Your task to perform on an android device: Show me popular games on the Play Store Image 0: 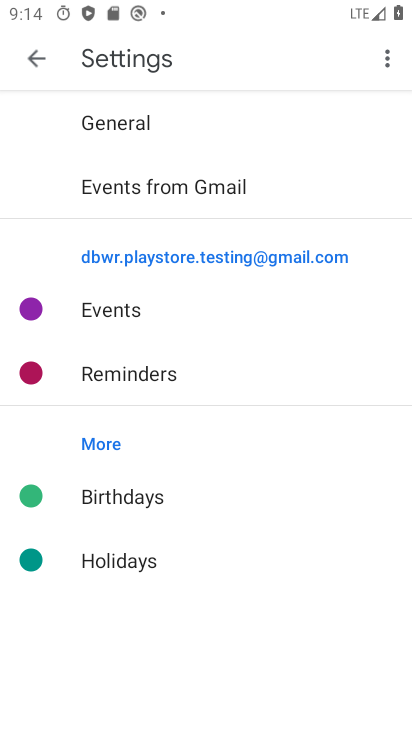
Step 0: press home button
Your task to perform on an android device: Show me popular games on the Play Store Image 1: 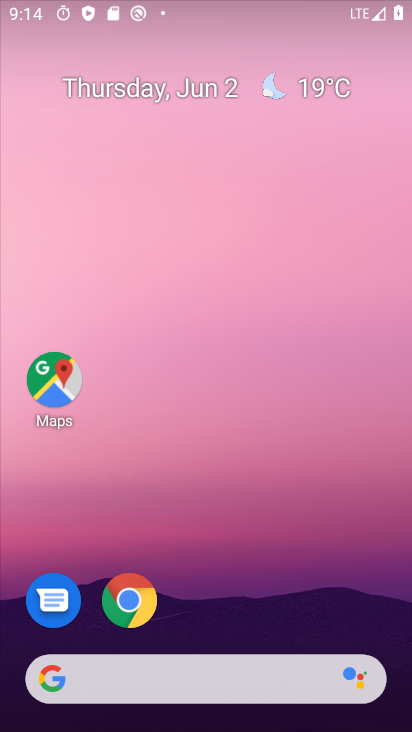
Step 1: drag from (209, 604) to (199, 135)
Your task to perform on an android device: Show me popular games on the Play Store Image 2: 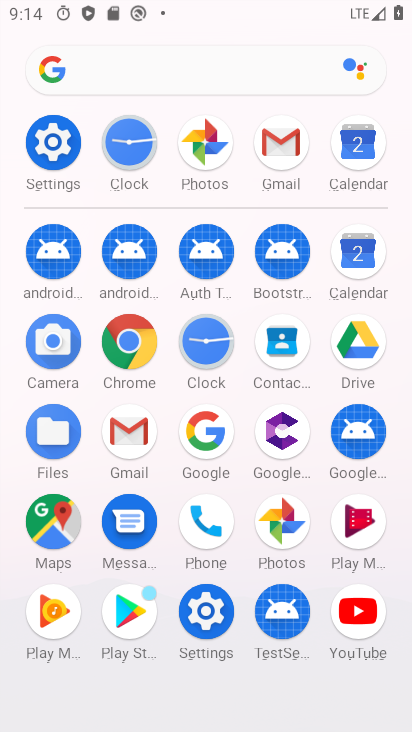
Step 2: click (140, 616)
Your task to perform on an android device: Show me popular games on the Play Store Image 3: 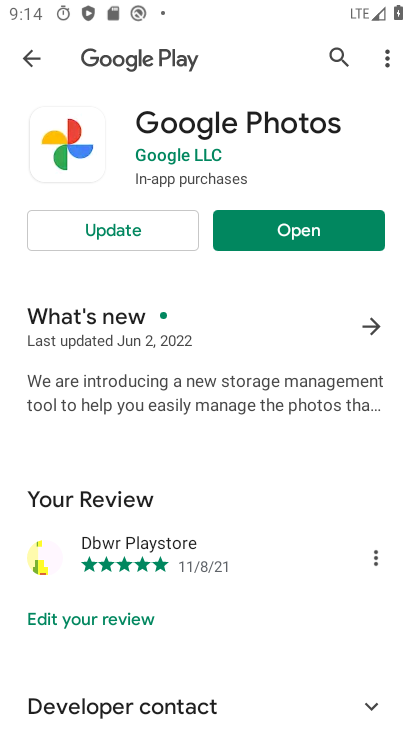
Step 3: click (272, 234)
Your task to perform on an android device: Show me popular games on the Play Store Image 4: 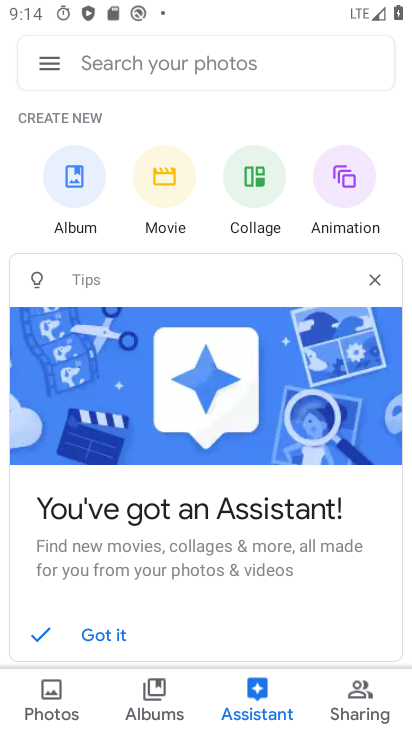
Step 4: click (40, 63)
Your task to perform on an android device: Show me popular games on the Play Store Image 5: 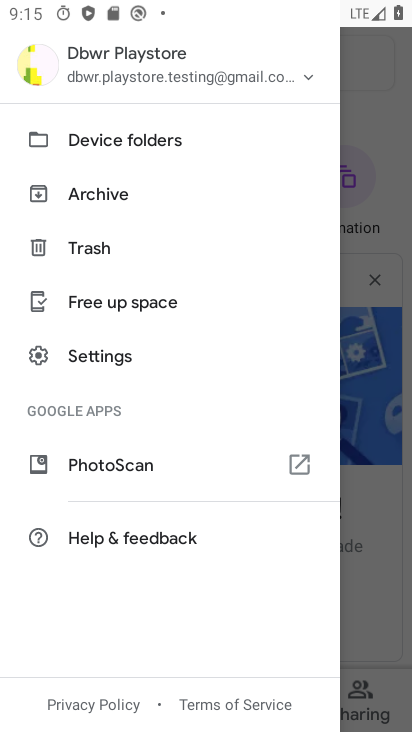
Step 5: click (76, 363)
Your task to perform on an android device: Show me popular games on the Play Store Image 6: 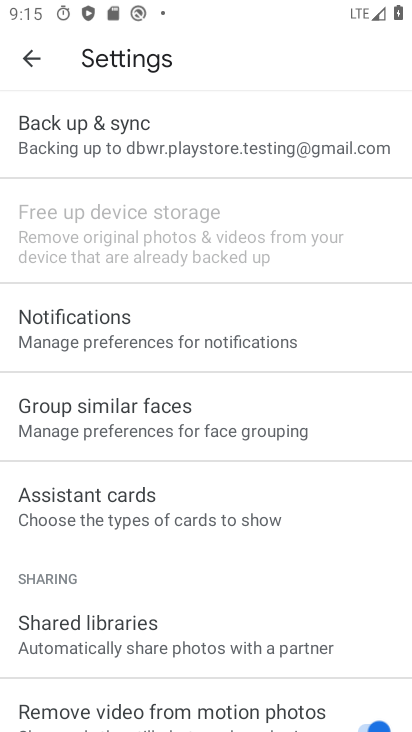
Step 6: click (23, 50)
Your task to perform on an android device: Show me popular games on the Play Store Image 7: 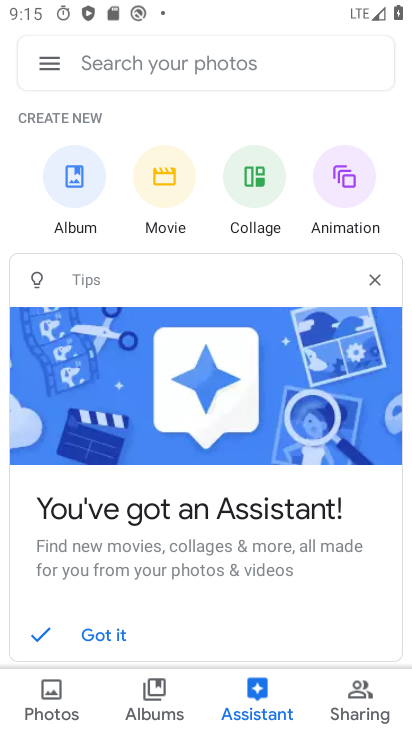
Step 7: press home button
Your task to perform on an android device: Show me popular games on the Play Store Image 8: 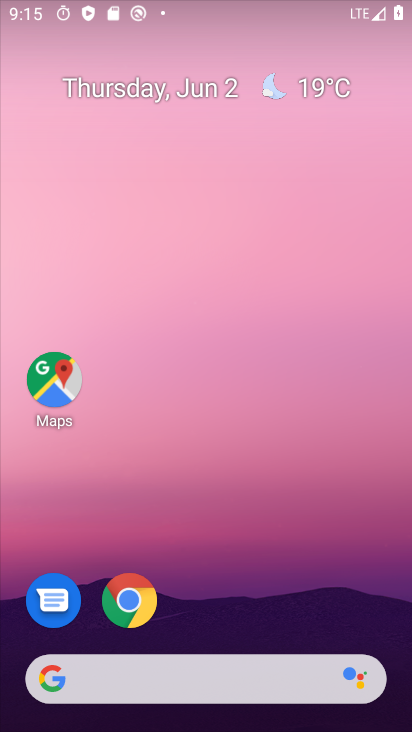
Step 8: drag from (232, 613) to (204, 120)
Your task to perform on an android device: Show me popular games on the Play Store Image 9: 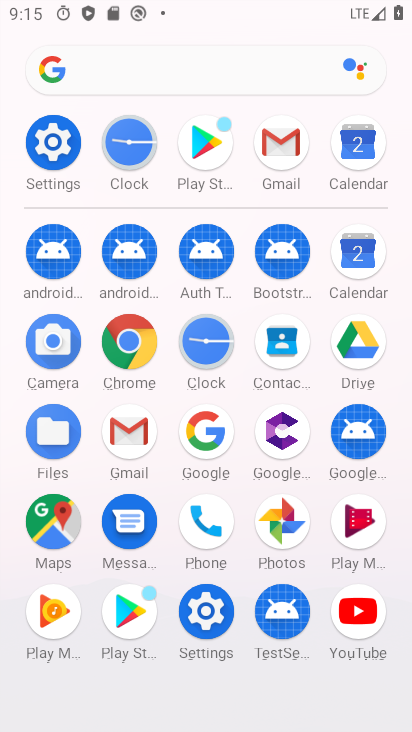
Step 9: click (129, 578)
Your task to perform on an android device: Show me popular games on the Play Store Image 10: 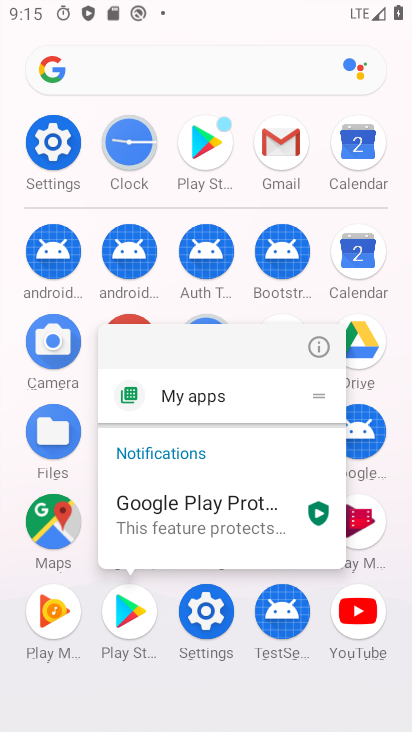
Step 10: click (127, 606)
Your task to perform on an android device: Show me popular games on the Play Store Image 11: 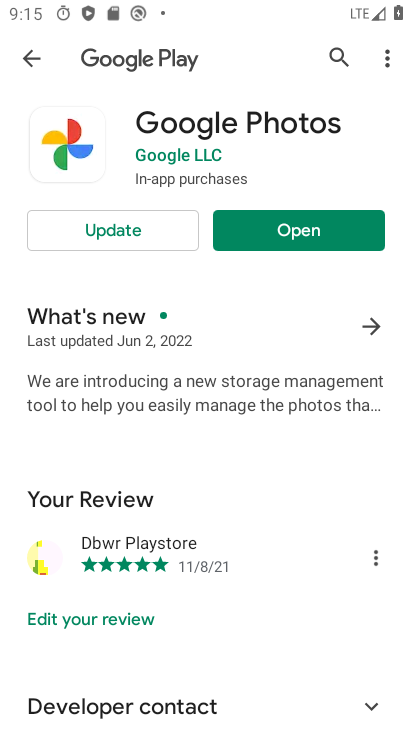
Step 11: click (28, 50)
Your task to perform on an android device: Show me popular games on the Play Store Image 12: 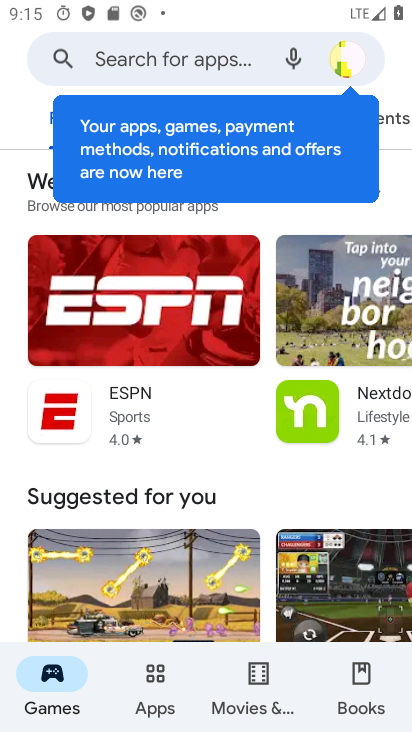
Step 12: click (139, 187)
Your task to perform on an android device: Show me popular games on the Play Store Image 13: 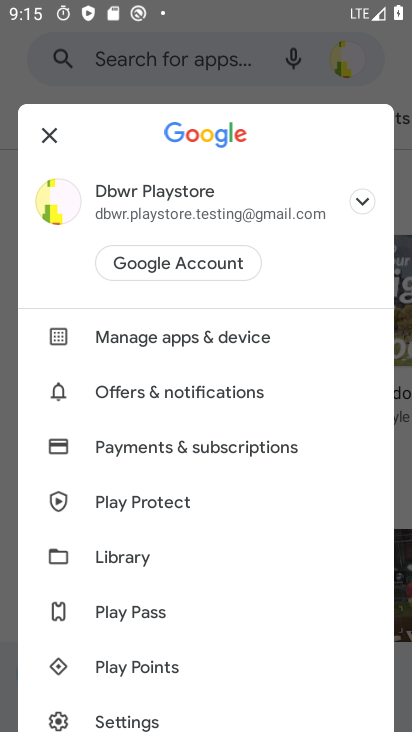
Step 13: click (45, 124)
Your task to perform on an android device: Show me popular games on the Play Store Image 14: 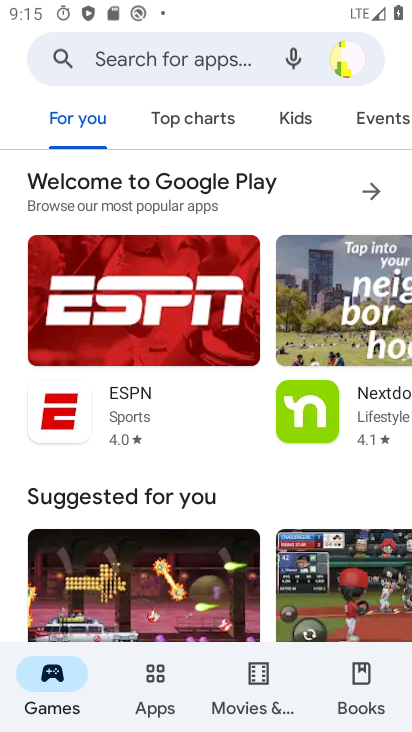
Step 14: click (192, 119)
Your task to perform on an android device: Show me popular games on the Play Store Image 15: 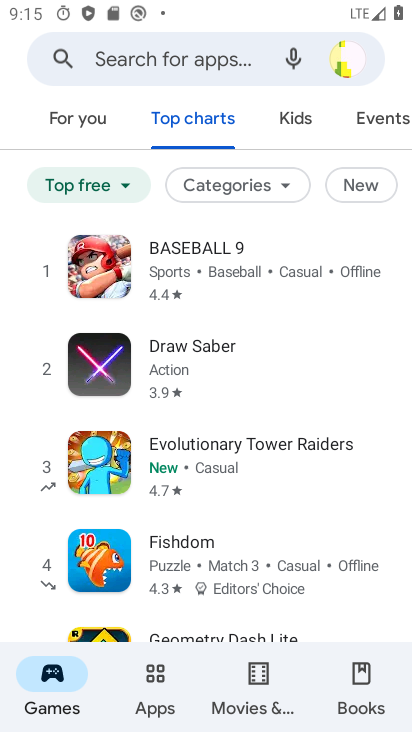
Step 15: task complete